Your task to perform on an android device: Go to eBay Image 0: 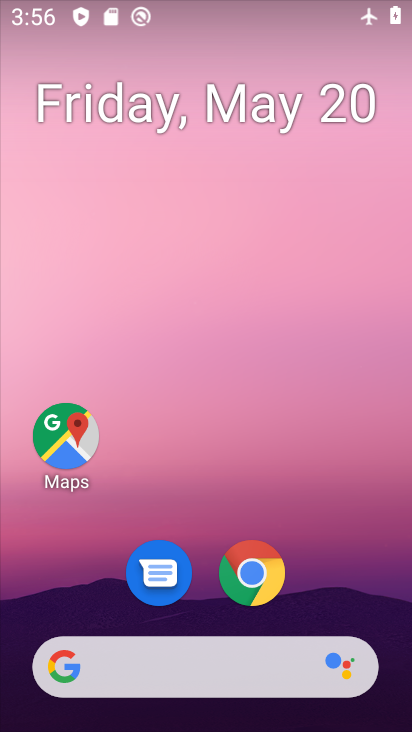
Step 0: click (268, 565)
Your task to perform on an android device: Go to eBay Image 1: 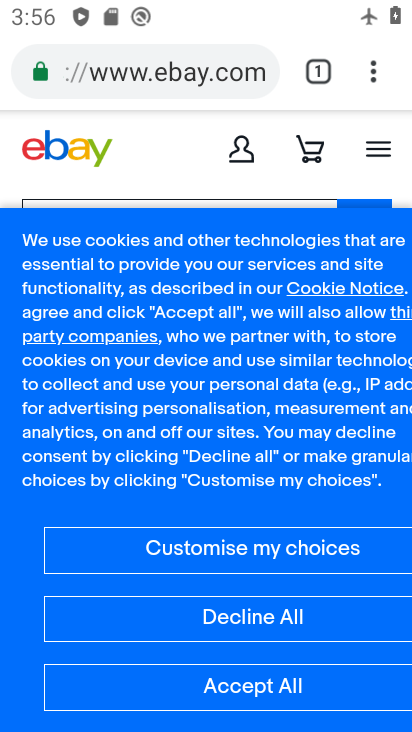
Step 1: task complete